Your task to perform on an android device: What's the weather today? Image 0: 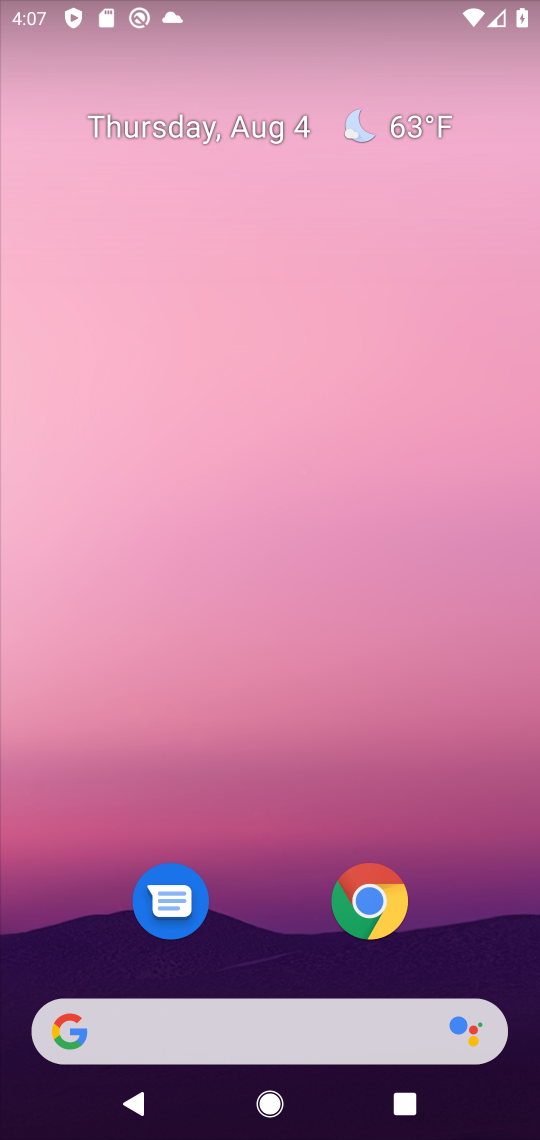
Step 0: drag from (310, 937) to (379, 23)
Your task to perform on an android device: What's the weather today? Image 1: 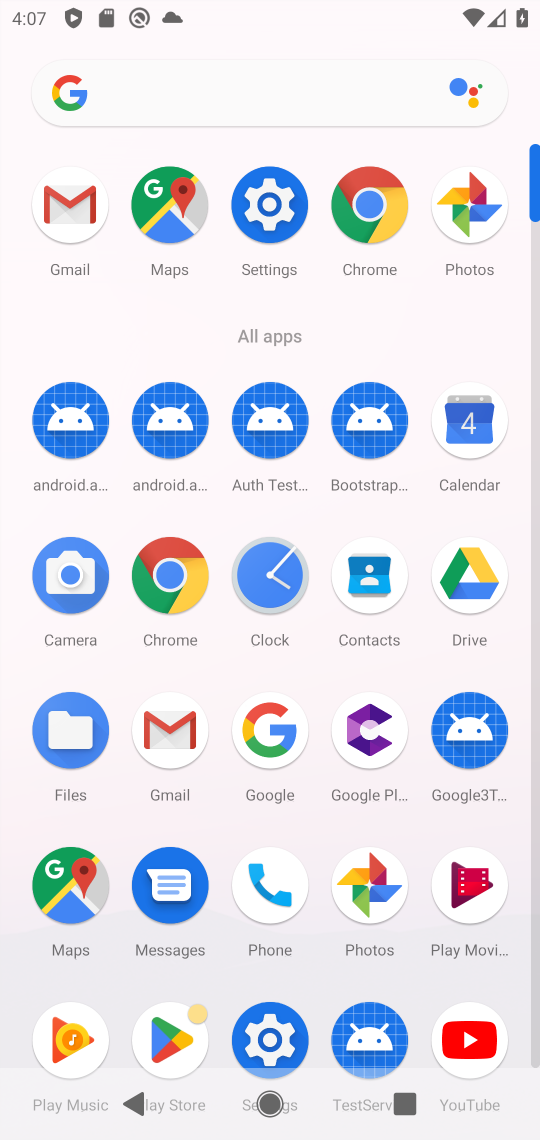
Step 1: drag from (161, 192) to (538, 190)
Your task to perform on an android device: What's the weather today? Image 2: 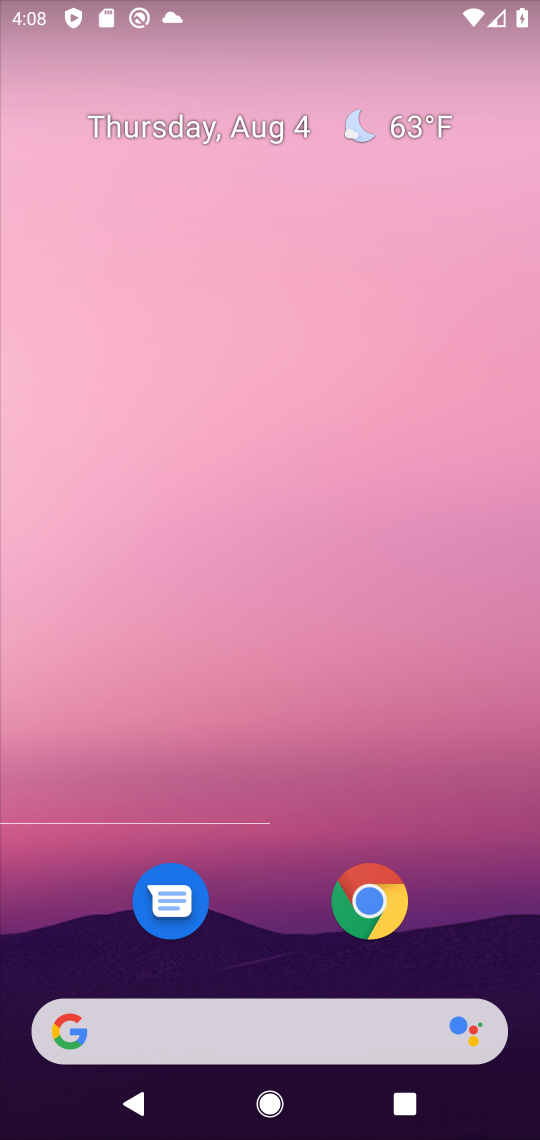
Step 2: drag from (281, 856) to (357, 13)
Your task to perform on an android device: What's the weather today? Image 3: 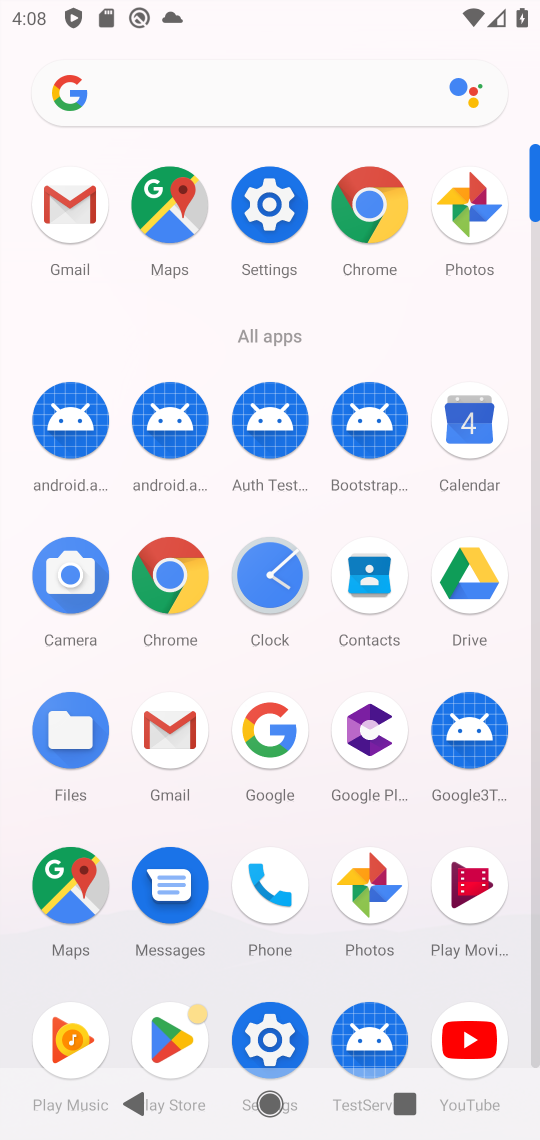
Step 3: click (373, 197)
Your task to perform on an android device: What's the weather today? Image 4: 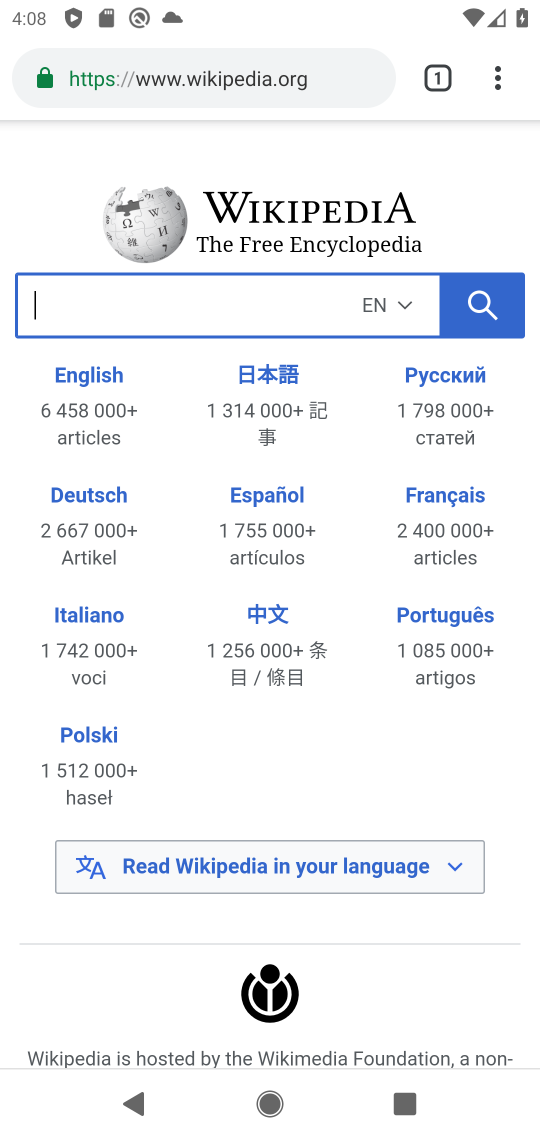
Step 4: click (187, 86)
Your task to perform on an android device: What's the weather today? Image 5: 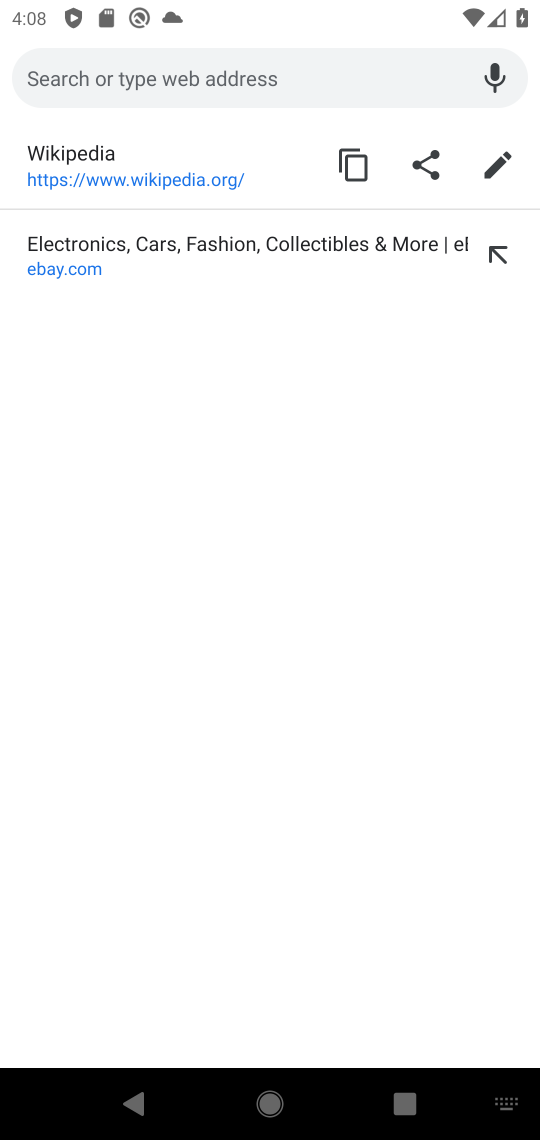
Step 5: type "What's the weather today?"
Your task to perform on an android device: What's the weather today? Image 6: 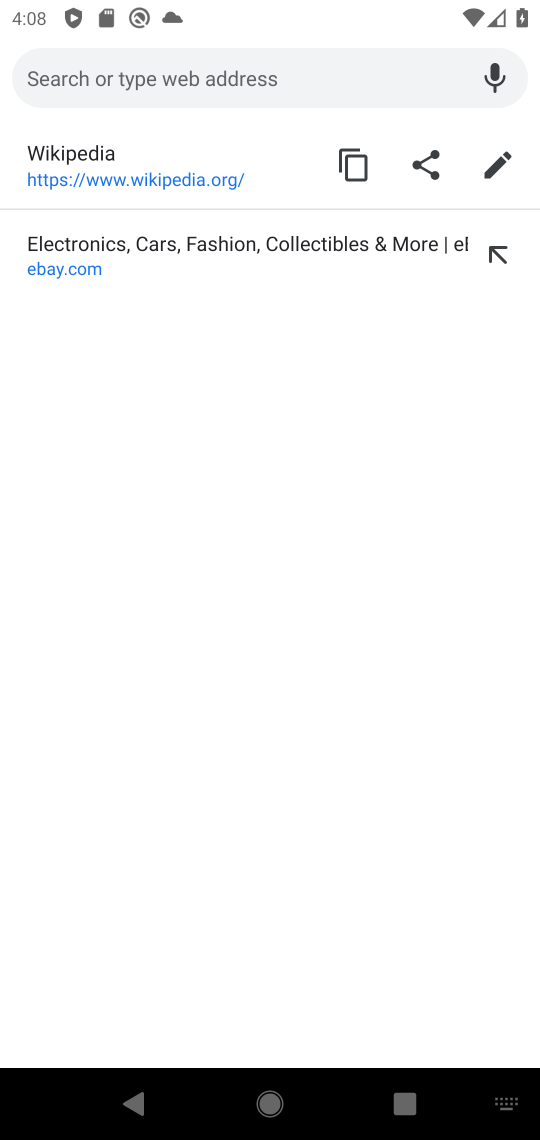
Step 6: click (147, 75)
Your task to perform on an android device: What's the weather today? Image 7: 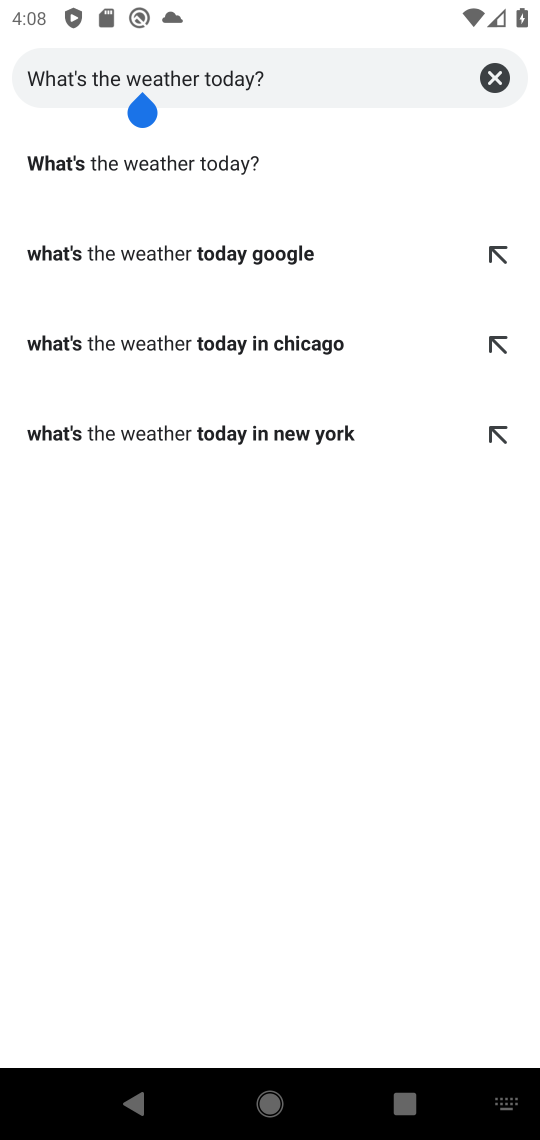
Step 7: click (190, 165)
Your task to perform on an android device: What's the weather today? Image 8: 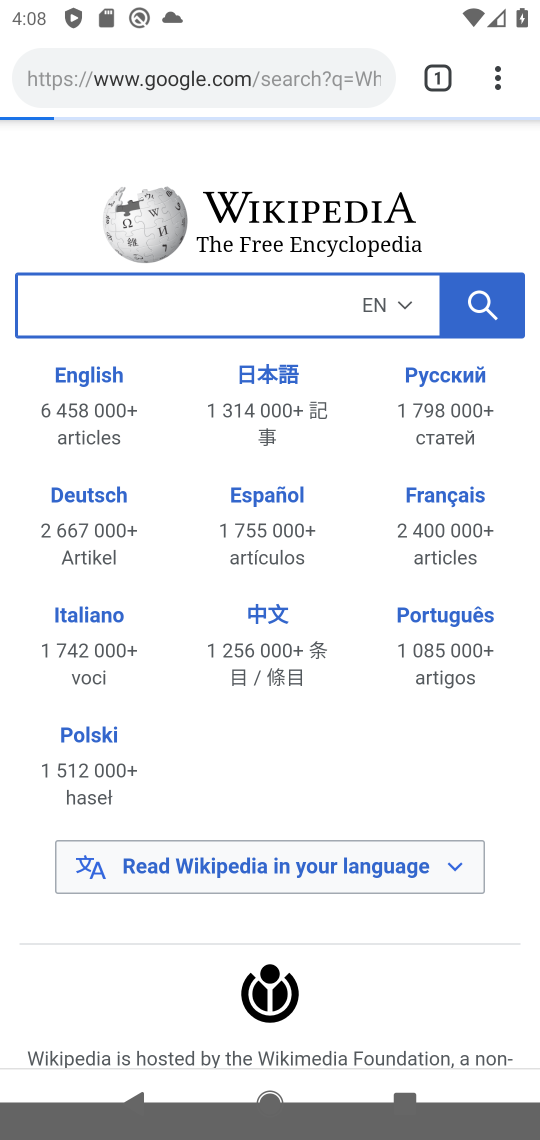
Step 8: click (190, 165)
Your task to perform on an android device: What's the weather today? Image 9: 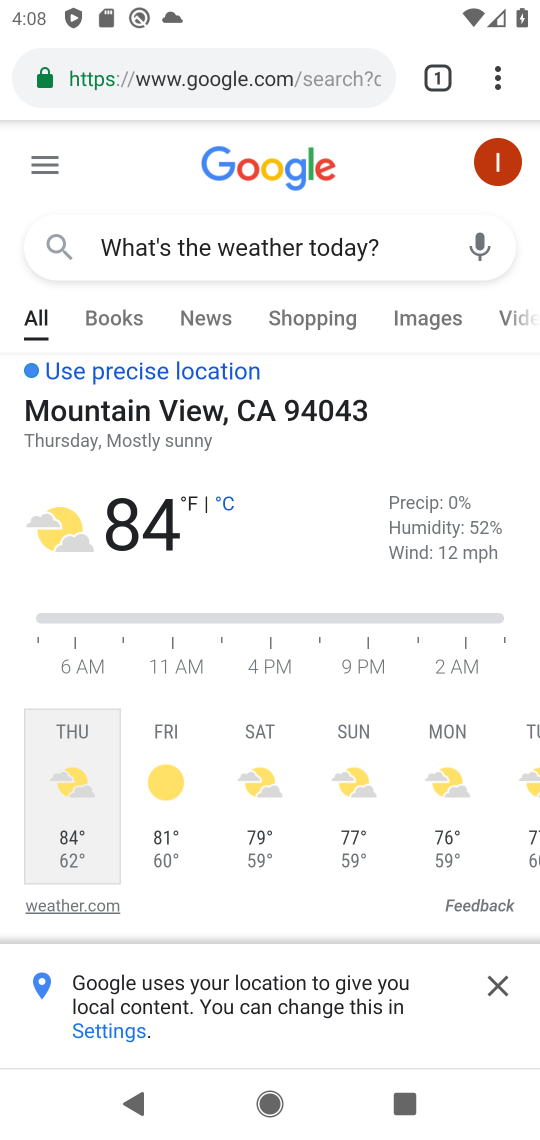
Step 9: task complete